Your task to perform on an android device: Open network settings Image 0: 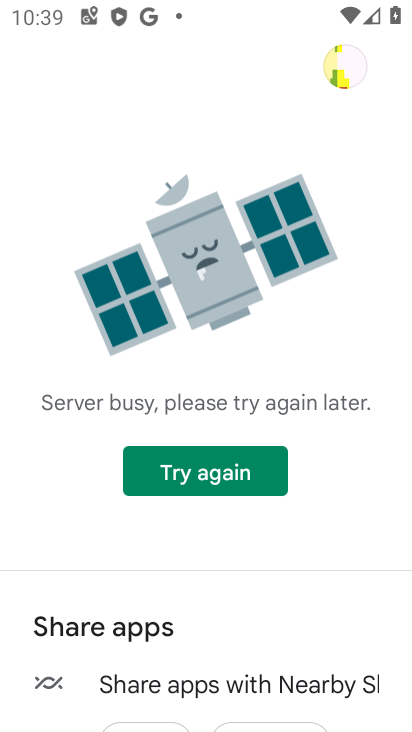
Step 0: press home button
Your task to perform on an android device: Open network settings Image 1: 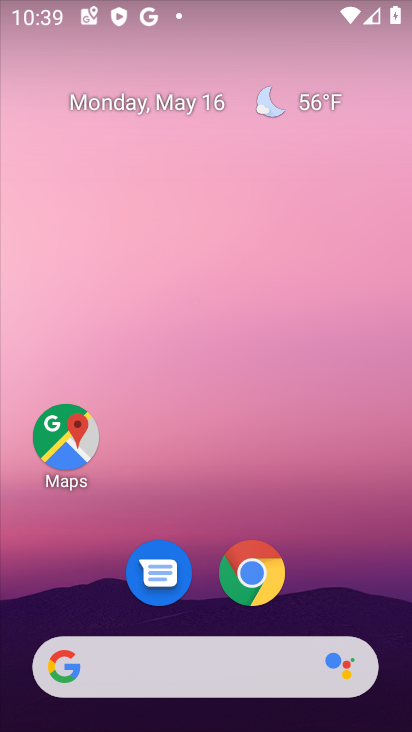
Step 1: drag from (330, 558) to (263, 151)
Your task to perform on an android device: Open network settings Image 2: 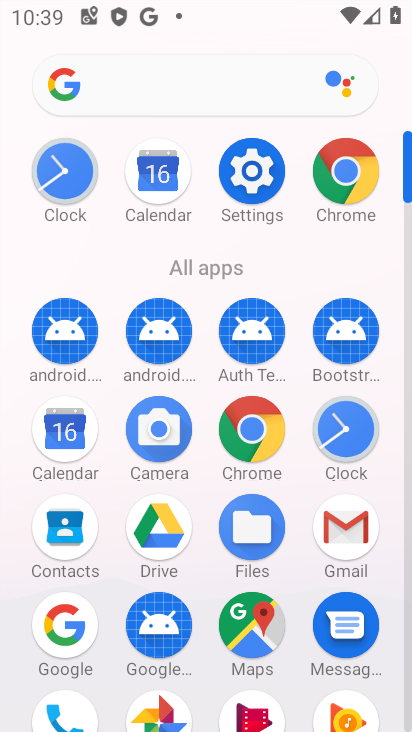
Step 2: click (256, 167)
Your task to perform on an android device: Open network settings Image 3: 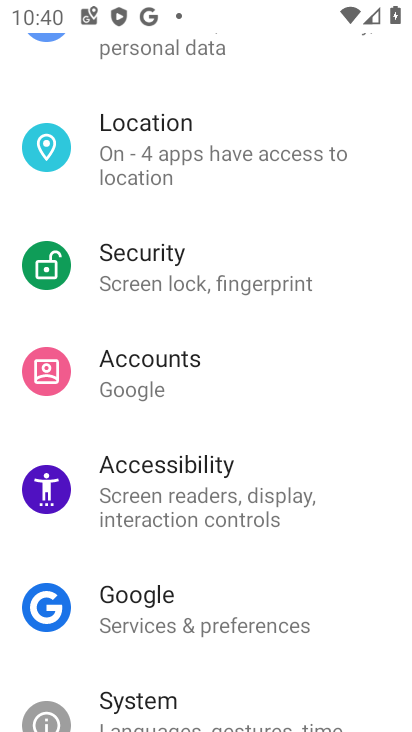
Step 3: drag from (216, 134) to (243, 541)
Your task to perform on an android device: Open network settings Image 4: 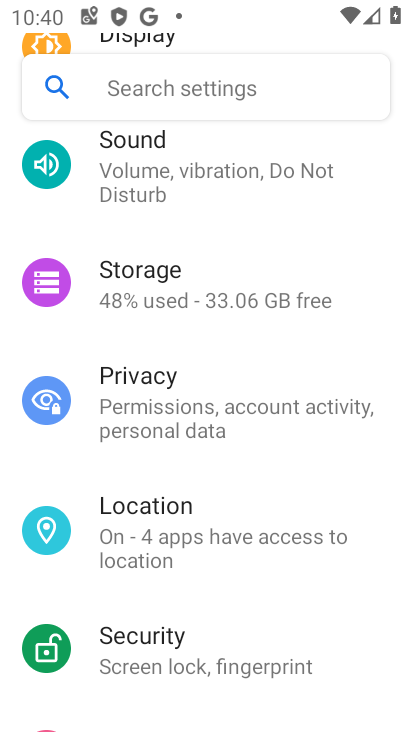
Step 4: drag from (183, 234) to (257, 657)
Your task to perform on an android device: Open network settings Image 5: 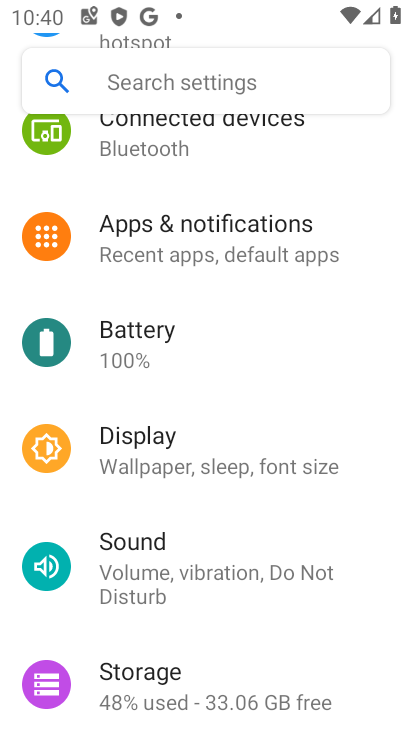
Step 5: drag from (196, 191) to (260, 429)
Your task to perform on an android device: Open network settings Image 6: 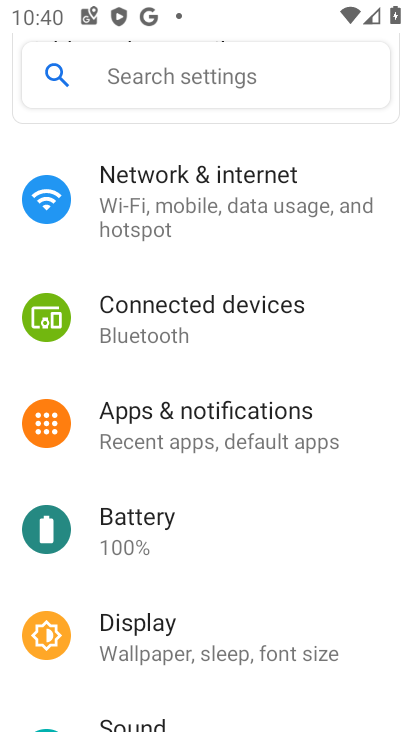
Step 6: click (161, 218)
Your task to perform on an android device: Open network settings Image 7: 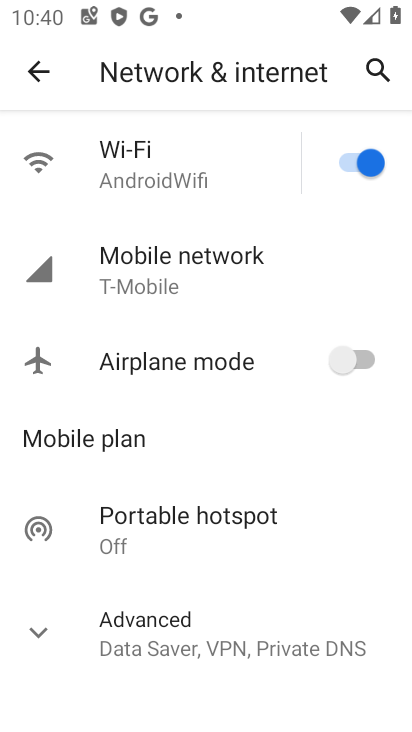
Step 7: task complete